Your task to perform on an android device: set the stopwatch Image 0: 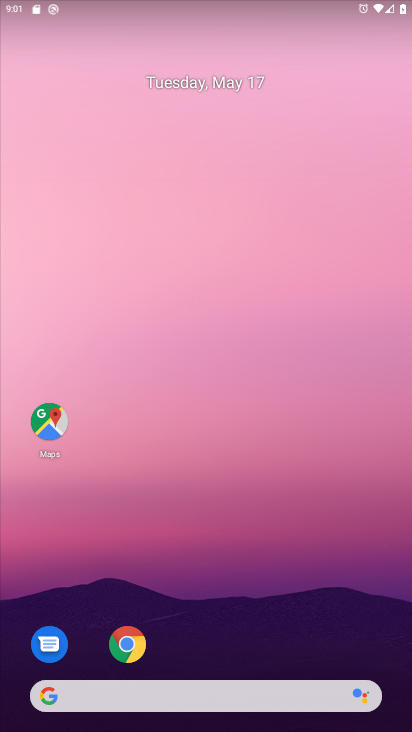
Step 0: drag from (229, 660) to (251, 80)
Your task to perform on an android device: set the stopwatch Image 1: 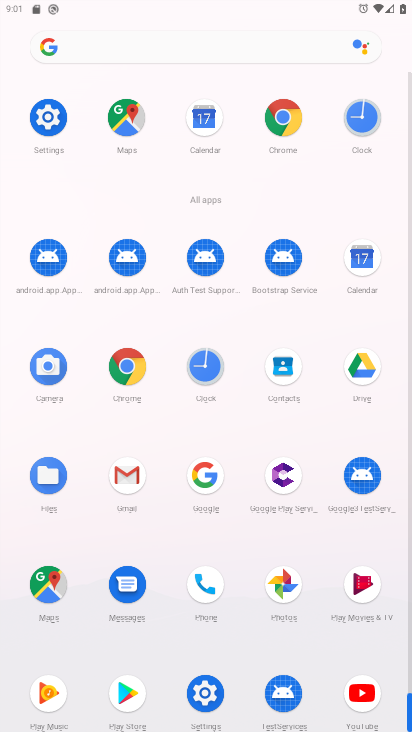
Step 1: click (204, 360)
Your task to perform on an android device: set the stopwatch Image 2: 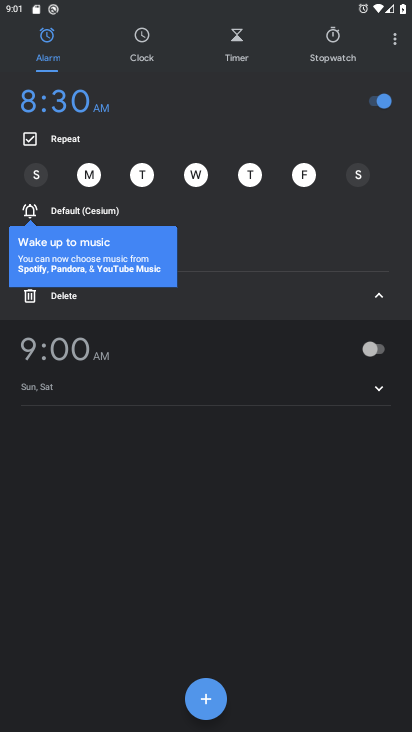
Step 2: click (330, 31)
Your task to perform on an android device: set the stopwatch Image 3: 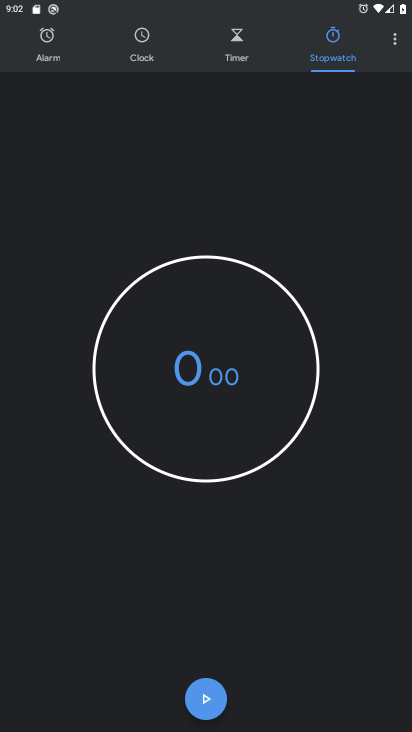
Step 3: click (205, 695)
Your task to perform on an android device: set the stopwatch Image 4: 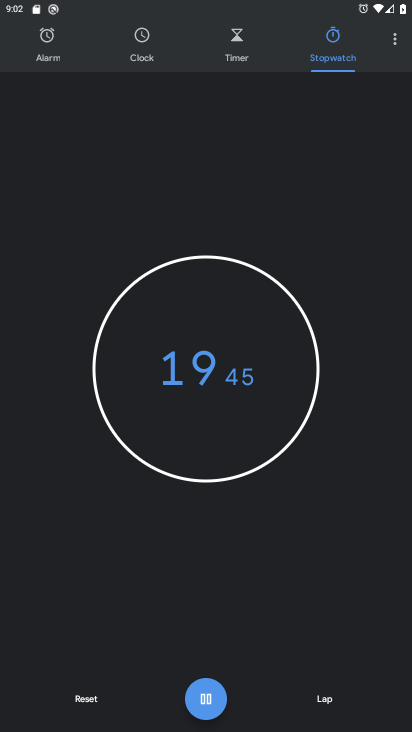
Step 4: task complete